Your task to perform on an android device: What's on my calendar today? Image 0: 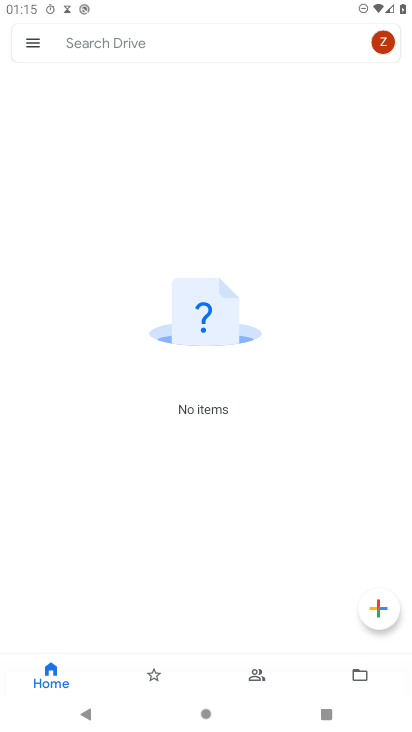
Step 0: press home button
Your task to perform on an android device: What's on my calendar today? Image 1: 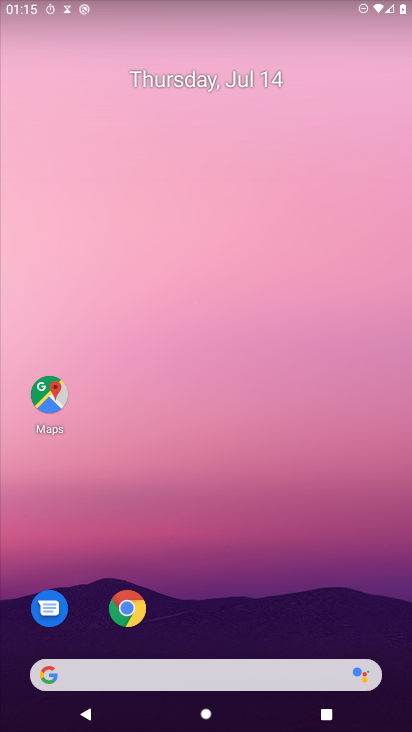
Step 1: drag from (244, 630) to (254, 97)
Your task to perform on an android device: What's on my calendar today? Image 2: 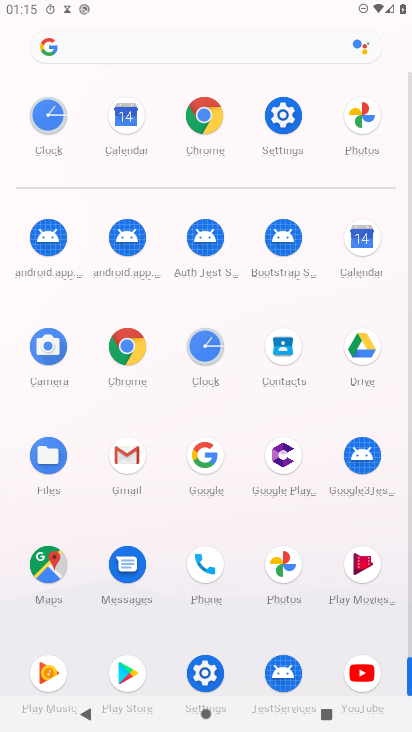
Step 2: click (359, 241)
Your task to perform on an android device: What's on my calendar today? Image 3: 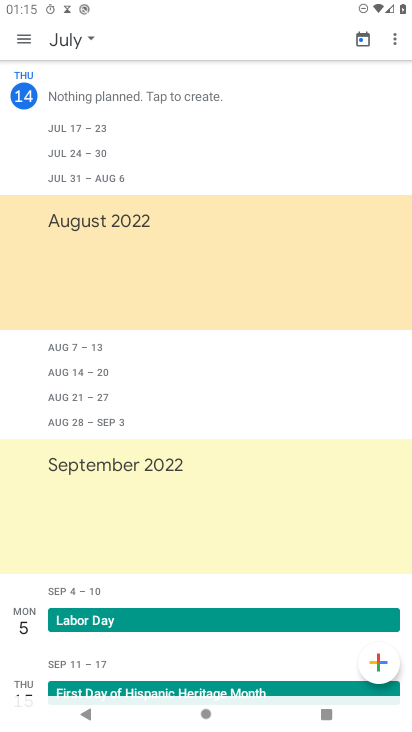
Step 3: click (30, 91)
Your task to perform on an android device: What's on my calendar today? Image 4: 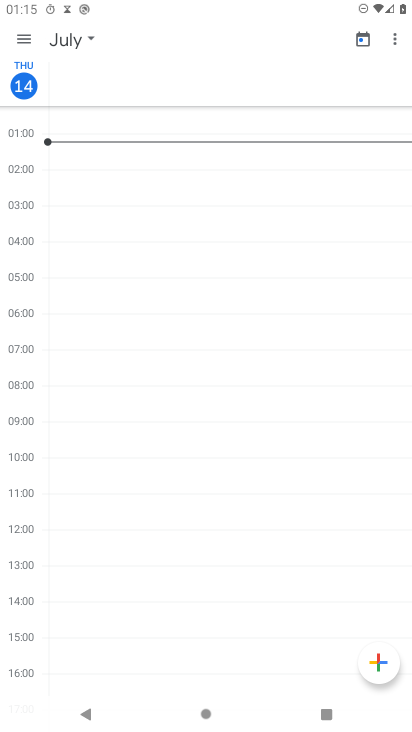
Step 4: task complete